Your task to perform on an android device: Open privacy settings Image 0: 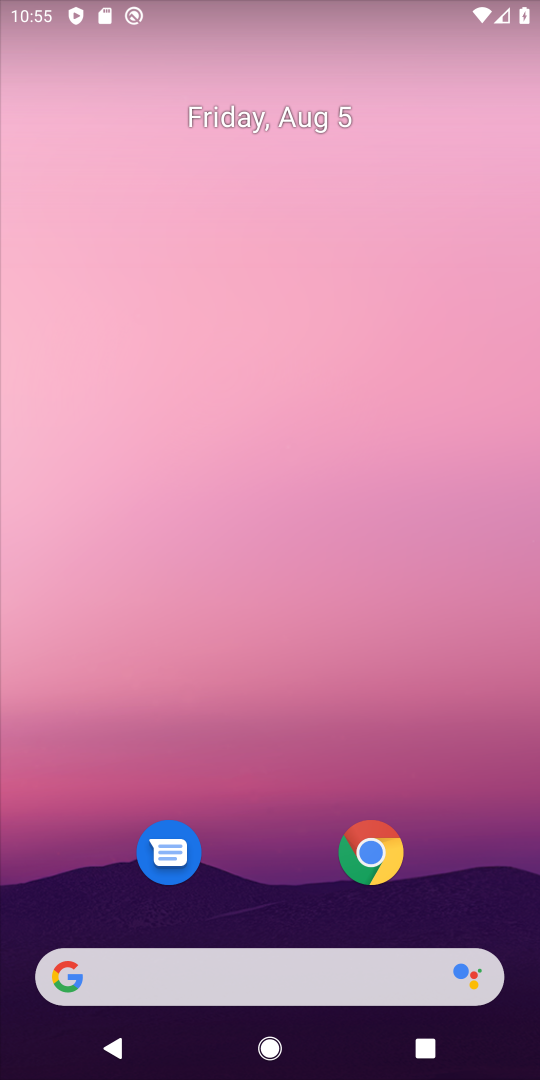
Step 0: drag from (274, 913) to (301, 580)
Your task to perform on an android device: Open privacy settings Image 1: 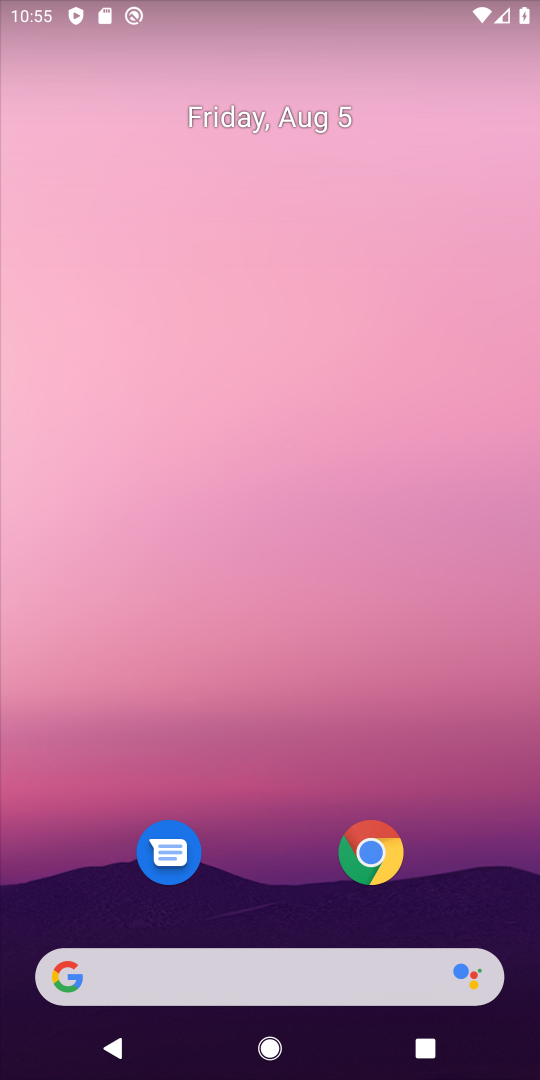
Step 1: drag from (252, 923) to (298, 307)
Your task to perform on an android device: Open privacy settings Image 2: 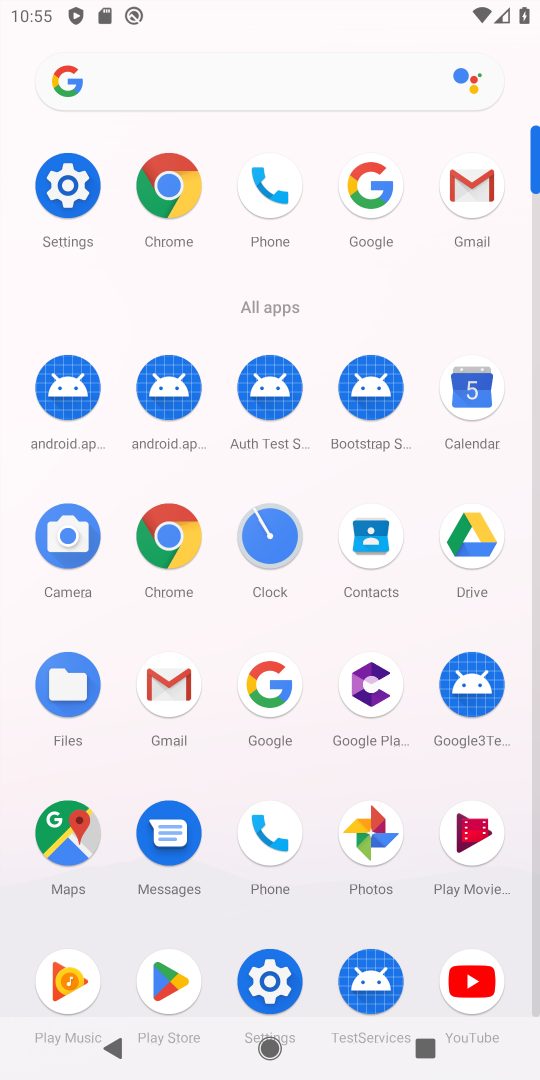
Step 2: click (62, 186)
Your task to perform on an android device: Open privacy settings Image 3: 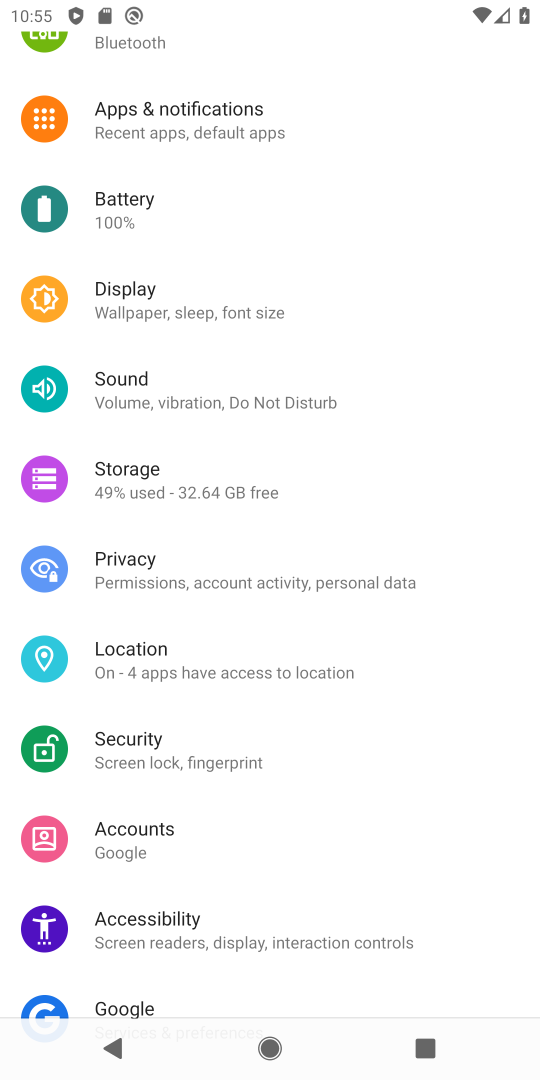
Step 3: click (134, 580)
Your task to perform on an android device: Open privacy settings Image 4: 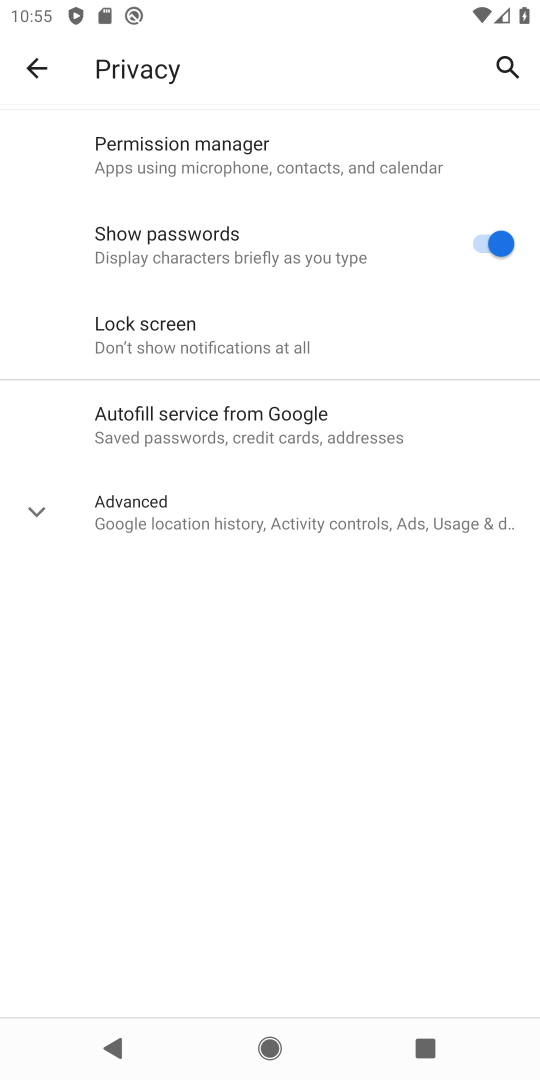
Step 4: click (104, 494)
Your task to perform on an android device: Open privacy settings Image 5: 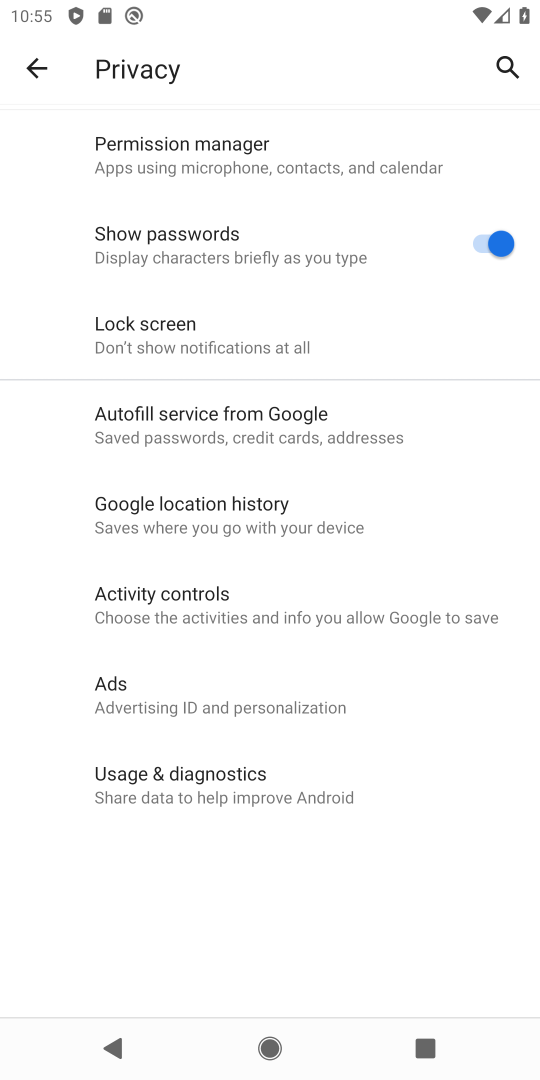
Step 5: task complete